Your task to perform on an android device: toggle improve location accuracy Image 0: 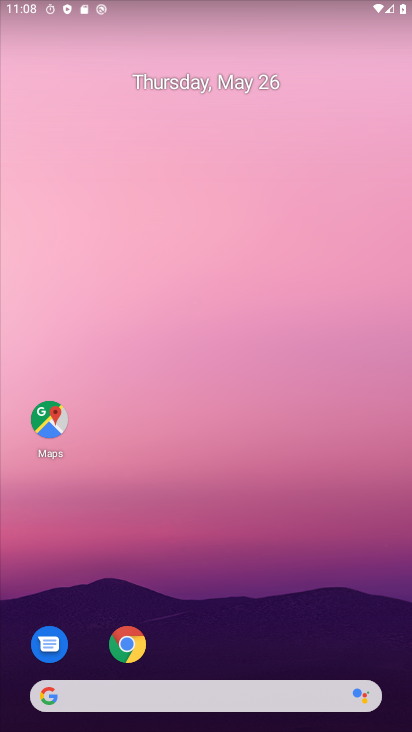
Step 0: drag from (121, 728) to (94, 112)
Your task to perform on an android device: toggle improve location accuracy Image 1: 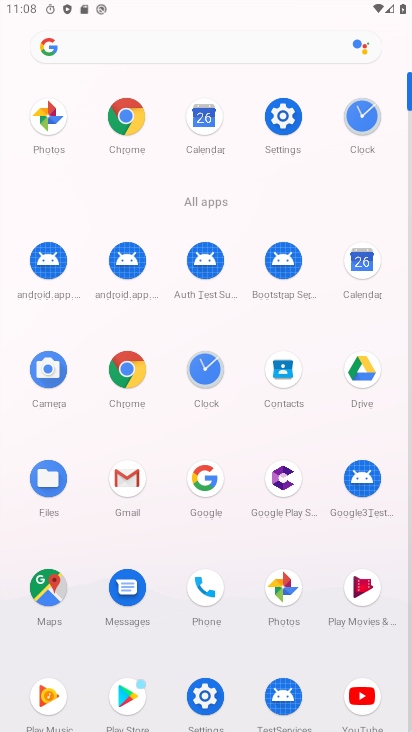
Step 1: click (276, 130)
Your task to perform on an android device: toggle improve location accuracy Image 2: 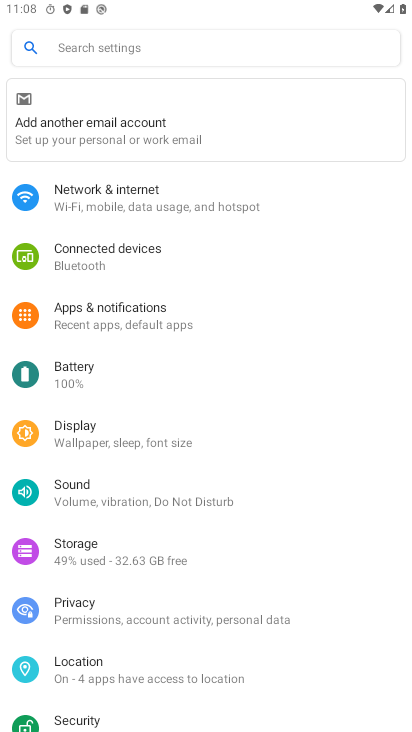
Step 2: click (117, 664)
Your task to perform on an android device: toggle improve location accuracy Image 3: 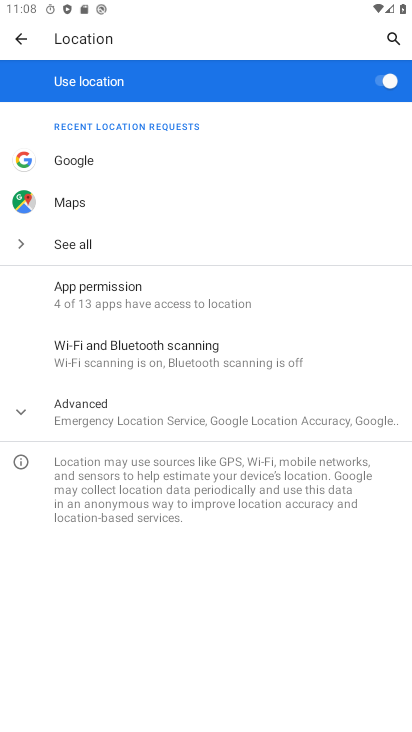
Step 3: click (138, 416)
Your task to perform on an android device: toggle improve location accuracy Image 4: 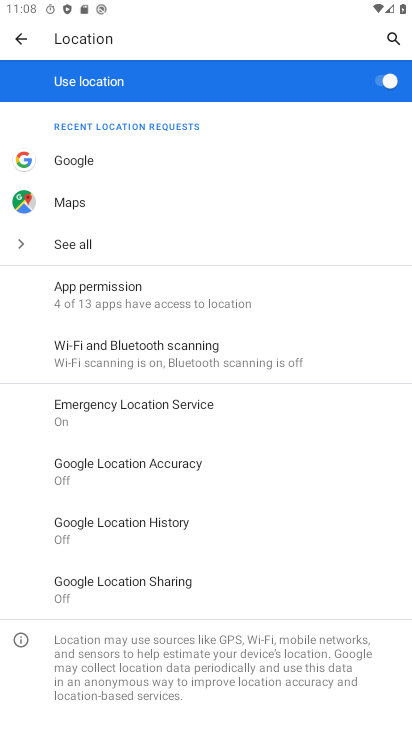
Step 4: click (164, 477)
Your task to perform on an android device: toggle improve location accuracy Image 5: 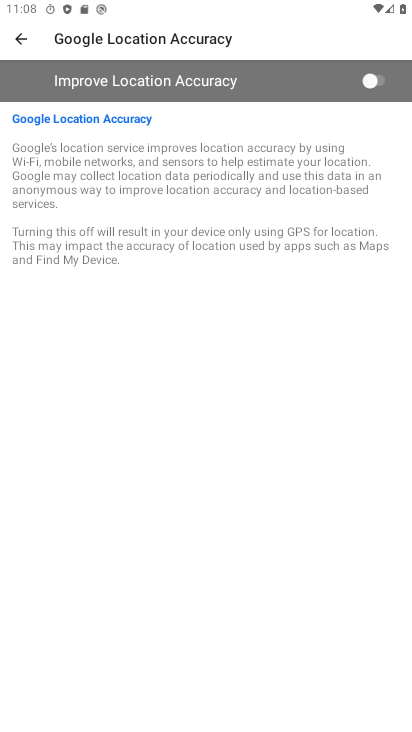
Step 5: click (371, 81)
Your task to perform on an android device: toggle improve location accuracy Image 6: 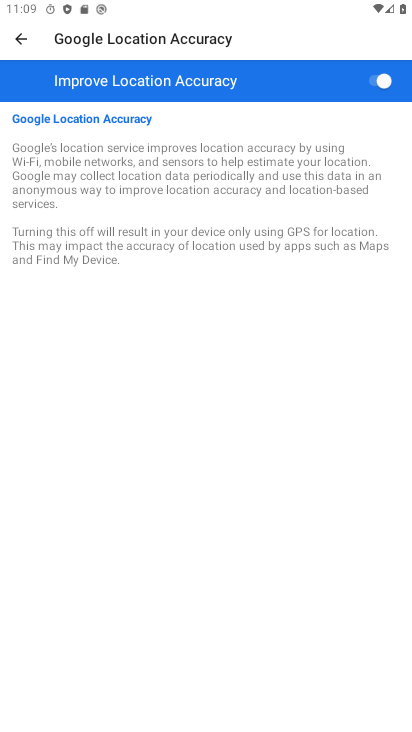
Step 6: task complete